Your task to perform on an android device: Go to Yahoo.com Image 0: 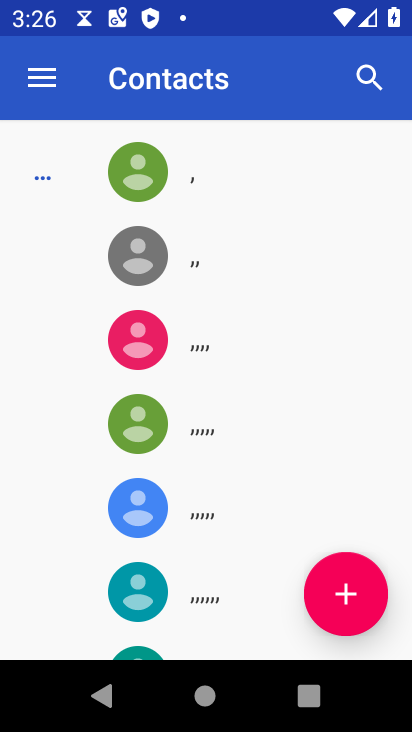
Step 0: press home button
Your task to perform on an android device: Go to Yahoo.com Image 1: 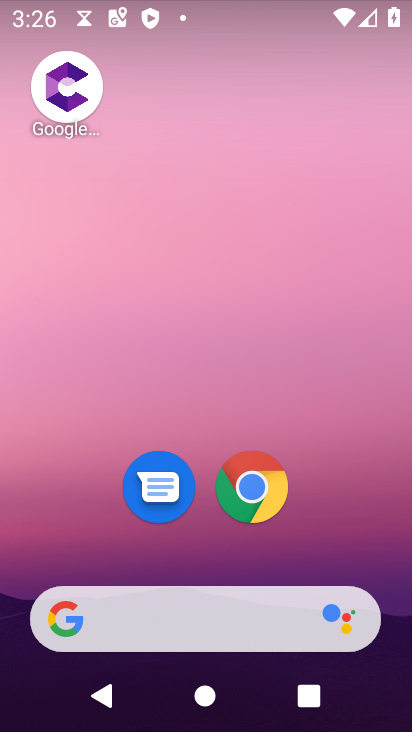
Step 1: click (254, 489)
Your task to perform on an android device: Go to Yahoo.com Image 2: 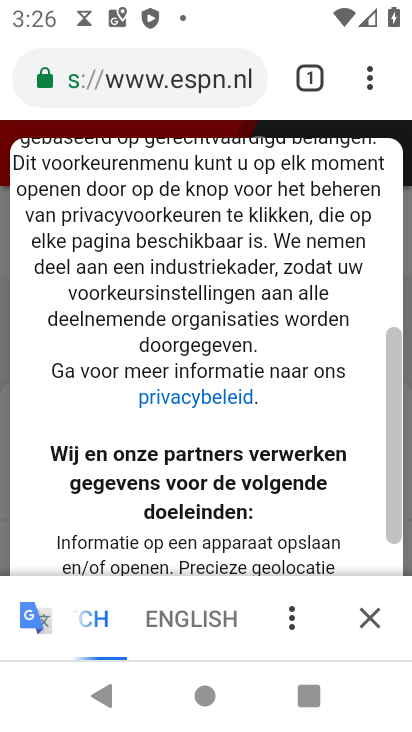
Step 2: click (157, 66)
Your task to perform on an android device: Go to Yahoo.com Image 3: 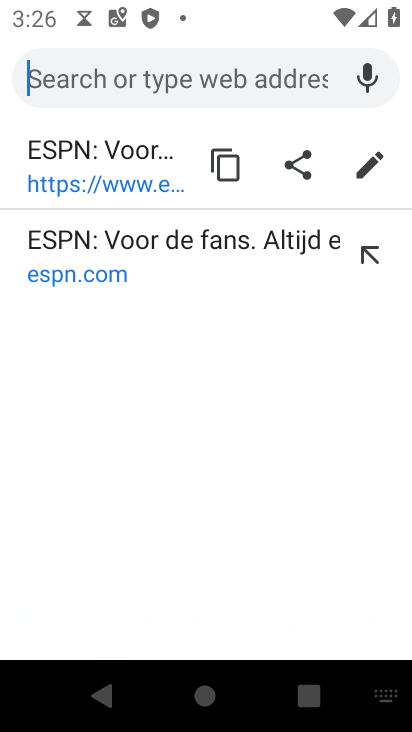
Step 3: type "yahoo.com"
Your task to perform on an android device: Go to Yahoo.com Image 4: 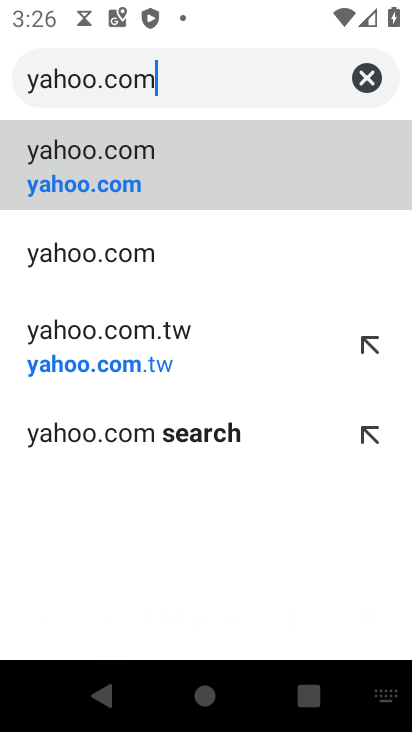
Step 4: click (90, 156)
Your task to perform on an android device: Go to Yahoo.com Image 5: 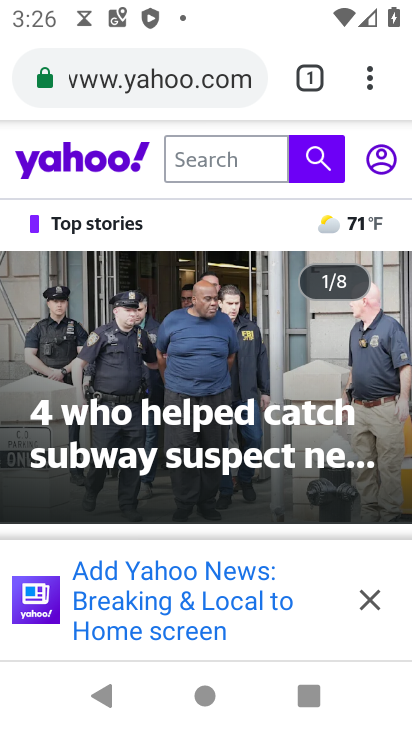
Step 5: task complete